Your task to perform on an android device: Open the settings Image 0: 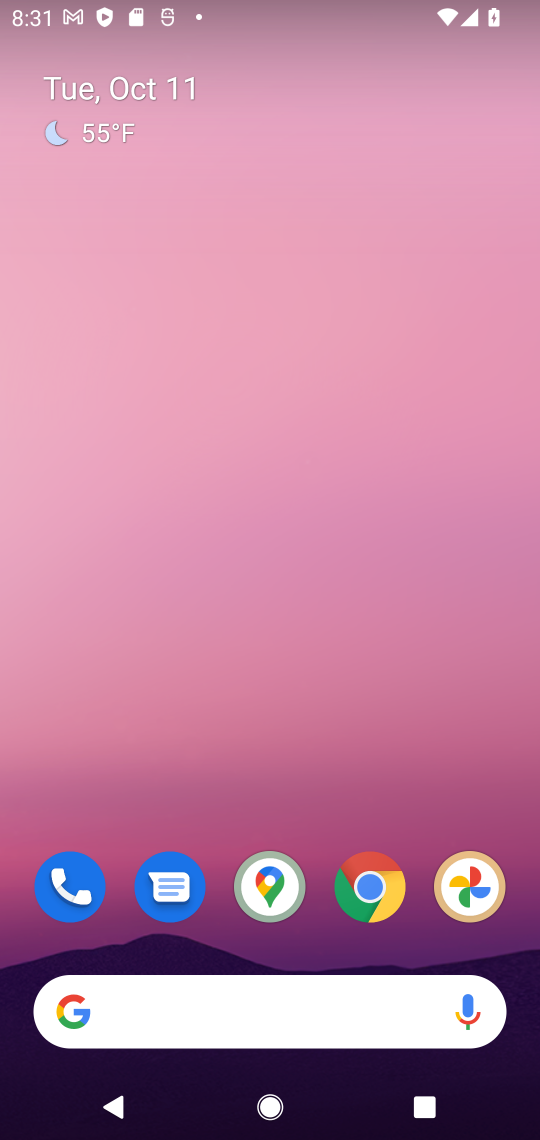
Step 0: drag from (341, 766) to (313, 89)
Your task to perform on an android device: Open the settings Image 1: 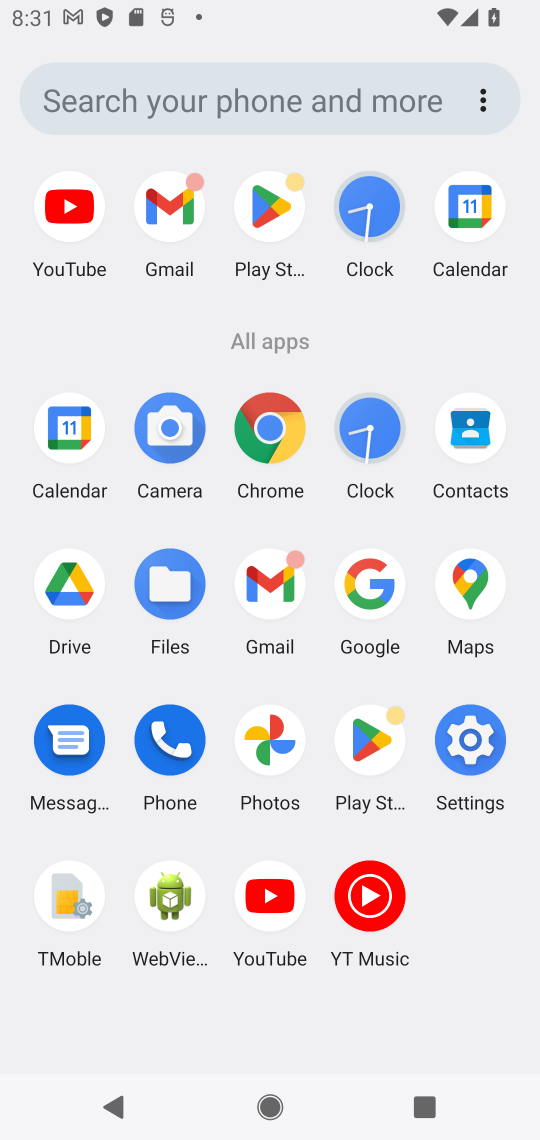
Step 1: click (454, 741)
Your task to perform on an android device: Open the settings Image 2: 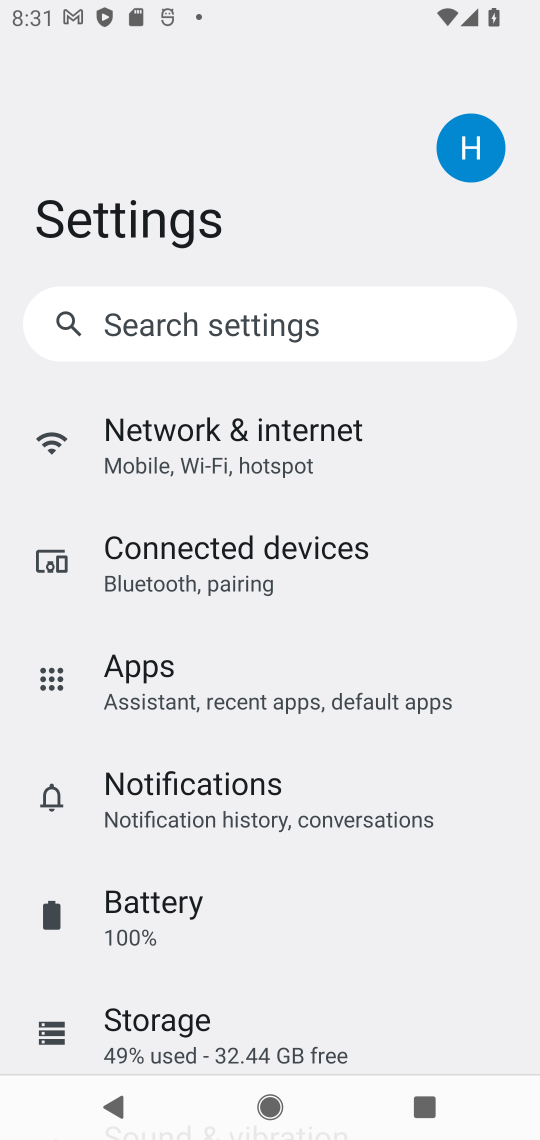
Step 2: task complete